Your task to perform on an android device: Open calendar and show me the first week of next month Image 0: 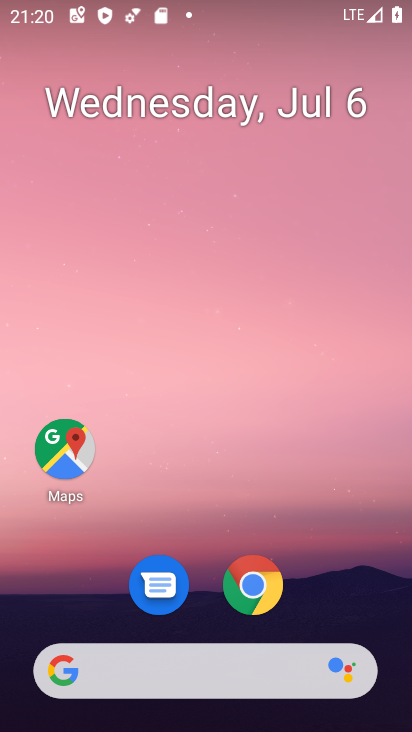
Step 0: drag from (191, 499) to (170, 35)
Your task to perform on an android device: Open calendar and show me the first week of next month Image 1: 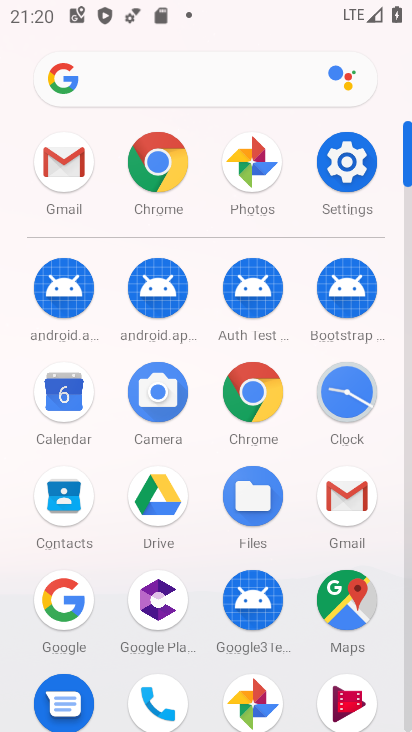
Step 1: click (68, 393)
Your task to perform on an android device: Open calendar and show me the first week of next month Image 2: 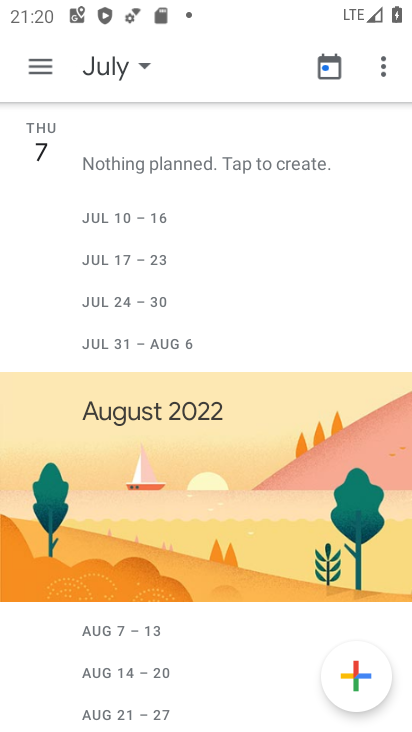
Step 2: click (44, 65)
Your task to perform on an android device: Open calendar and show me the first week of next month Image 3: 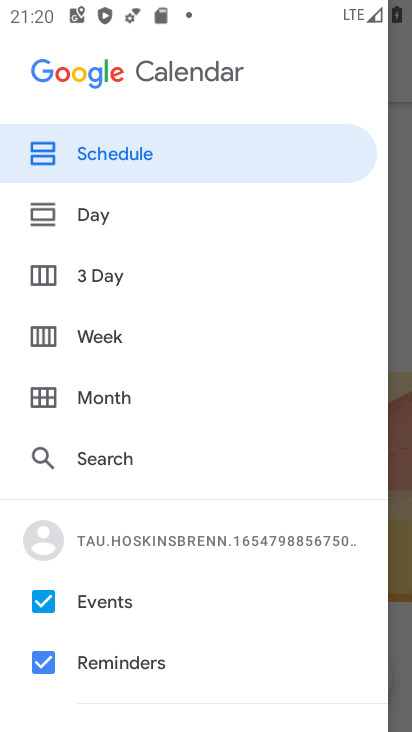
Step 3: click (42, 337)
Your task to perform on an android device: Open calendar and show me the first week of next month Image 4: 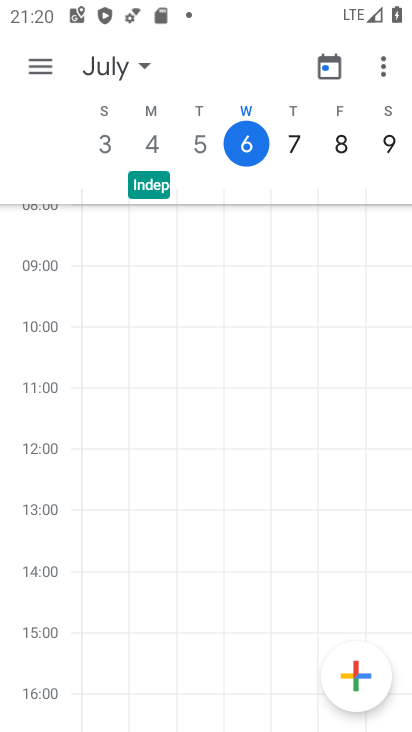
Step 4: task complete